Your task to perform on an android device: turn on priority inbox in the gmail app Image 0: 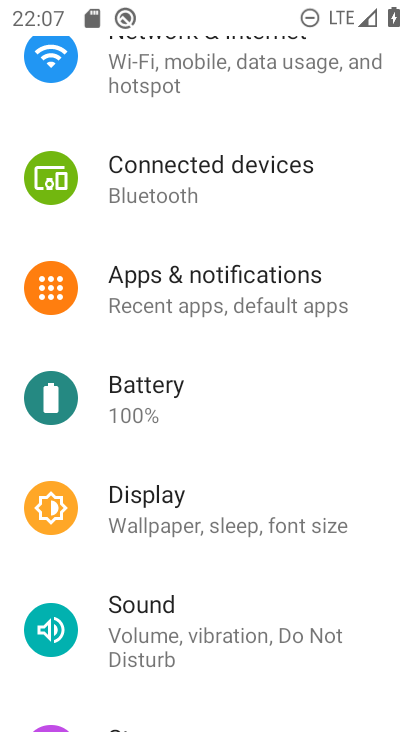
Step 0: press home button
Your task to perform on an android device: turn on priority inbox in the gmail app Image 1: 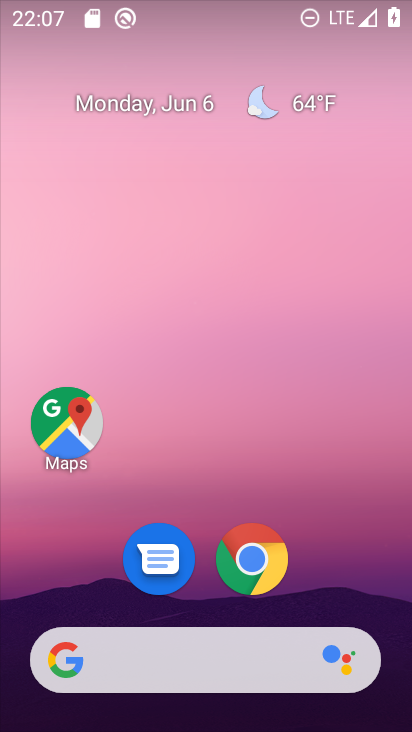
Step 1: drag from (211, 720) to (212, 162)
Your task to perform on an android device: turn on priority inbox in the gmail app Image 2: 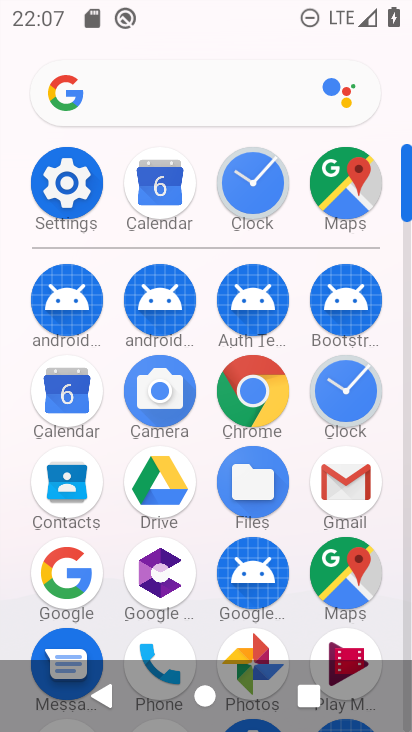
Step 2: click (347, 478)
Your task to perform on an android device: turn on priority inbox in the gmail app Image 3: 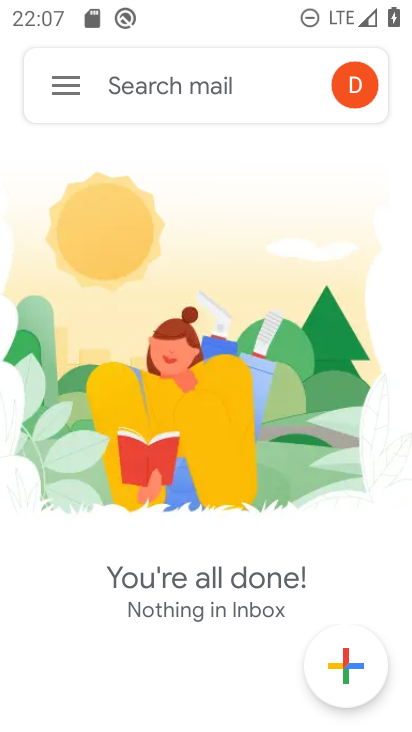
Step 3: click (64, 91)
Your task to perform on an android device: turn on priority inbox in the gmail app Image 4: 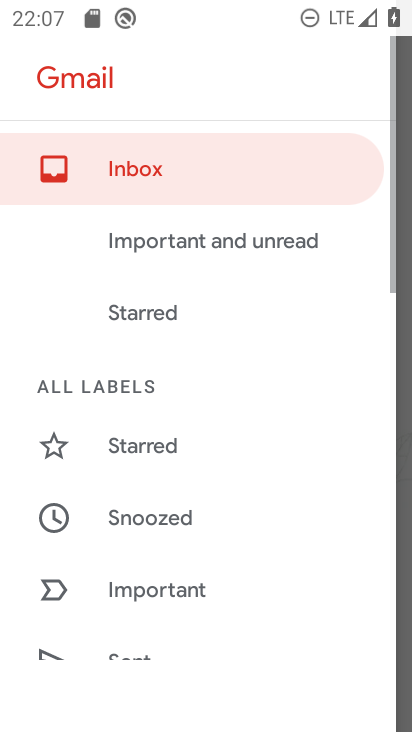
Step 4: drag from (190, 638) to (209, 333)
Your task to perform on an android device: turn on priority inbox in the gmail app Image 5: 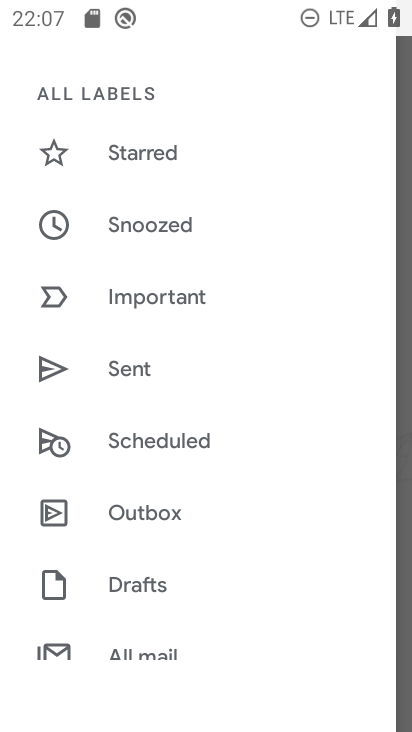
Step 5: drag from (175, 647) to (181, 309)
Your task to perform on an android device: turn on priority inbox in the gmail app Image 6: 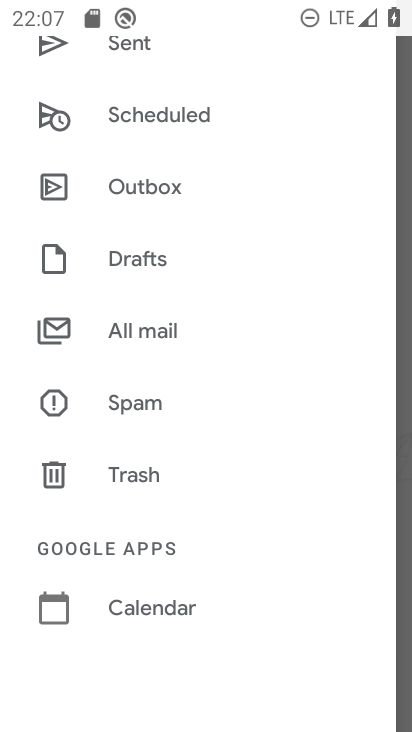
Step 6: drag from (129, 625) to (141, 253)
Your task to perform on an android device: turn on priority inbox in the gmail app Image 7: 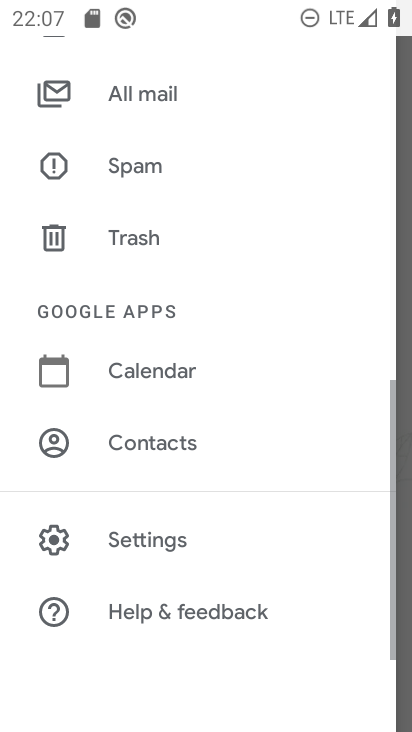
Step 7: click (137, 543)
Your task to perform on an android device: turn on priority inbox in the gmail app Image 8: 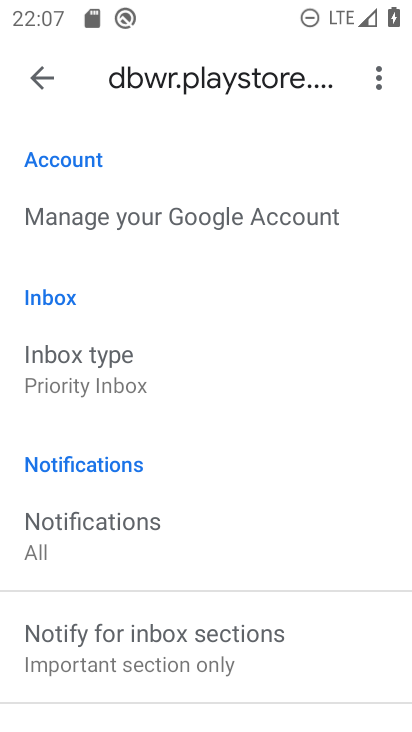
Step 8: task complete